Your task to perform on an android device: Go to Reddit.com Image 0: 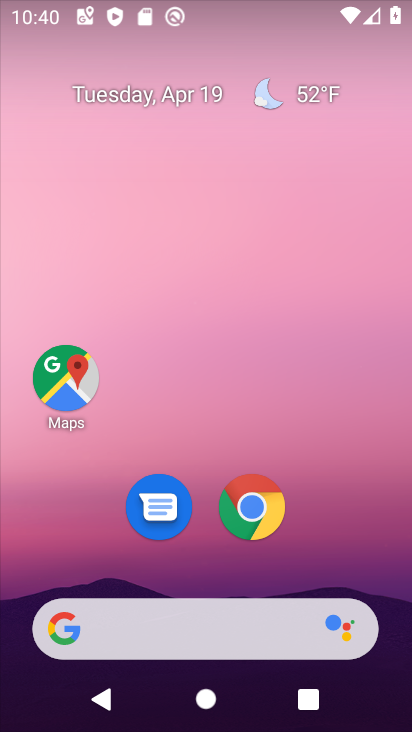
Step 0: drag from (336, 529) to (362, 85)
Your task to perform on an android device: Go to Reddit.com Image 1: 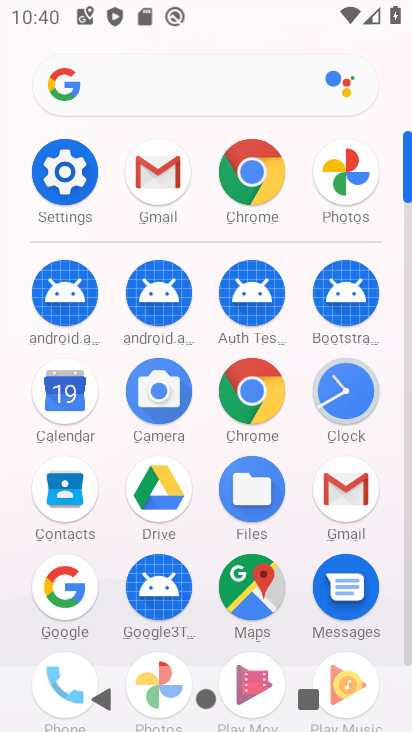
Step 1: click (245, 387)
Your task to perform on an android device: Go to Reddit.com Image 2: 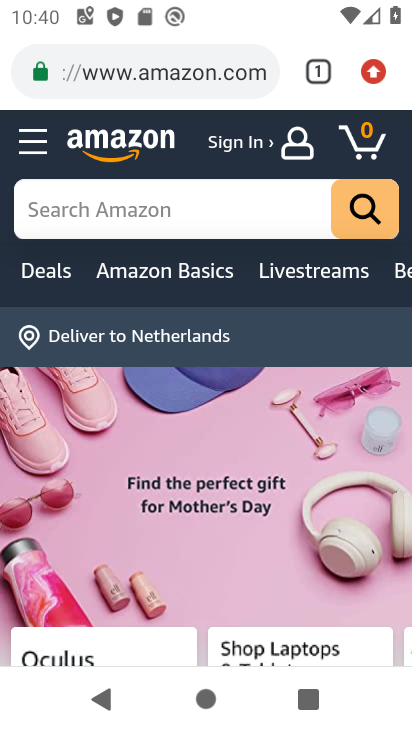
Step 2: click (245, 57)
Your task to perform on an android device: Go to Reddit.com Image 3: 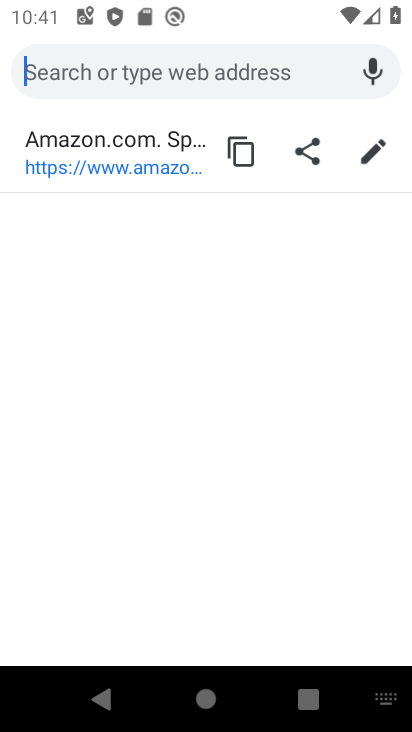
Step 3: type "reddit.com"
Your task to perform on an android device: Go to Reddit.com Image 4: 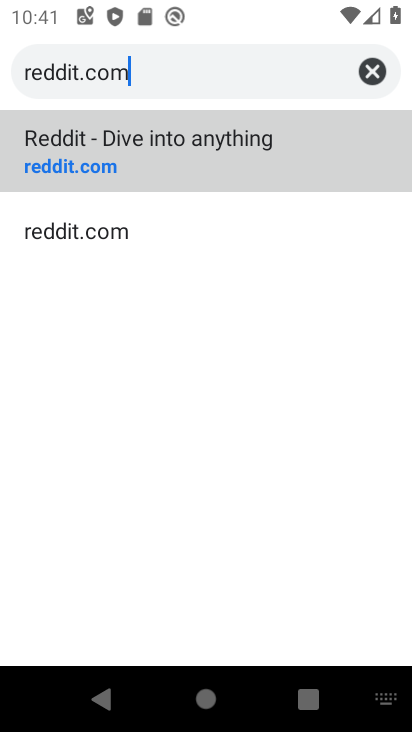
Step 4: click (106, 231)
Your task to perform on an android device: Go to Reddit.com Image 5: 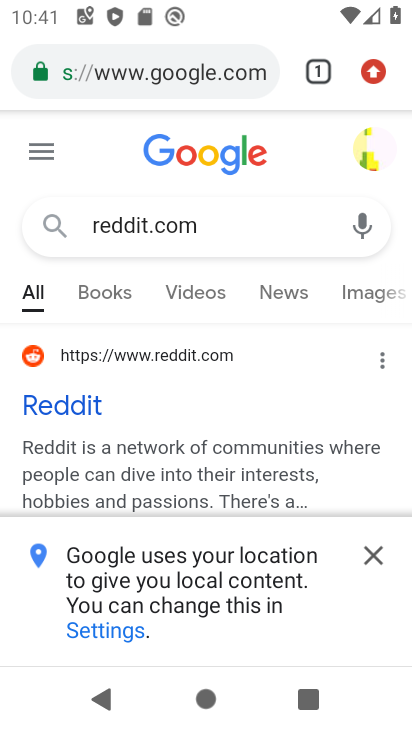
Step 5: task complete